Your task to perform on an android device: open app "Speedtest by Ookla" (install if not already installed) and go to login screen Image 0: 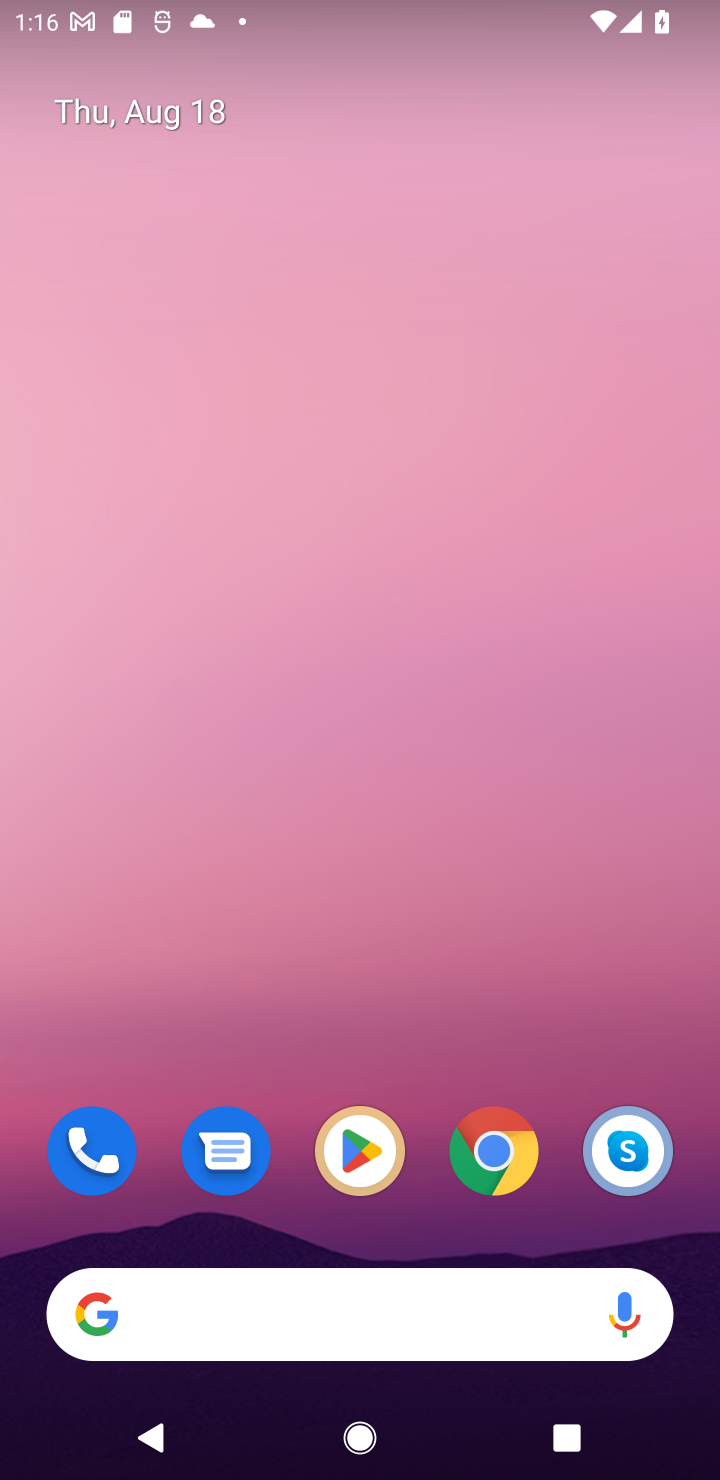
Step 0: click (345, 1148)
Your task to perform on an android device: open app "Speedtest by Ookla" (install if not already installed) and go to login screen Image 1: 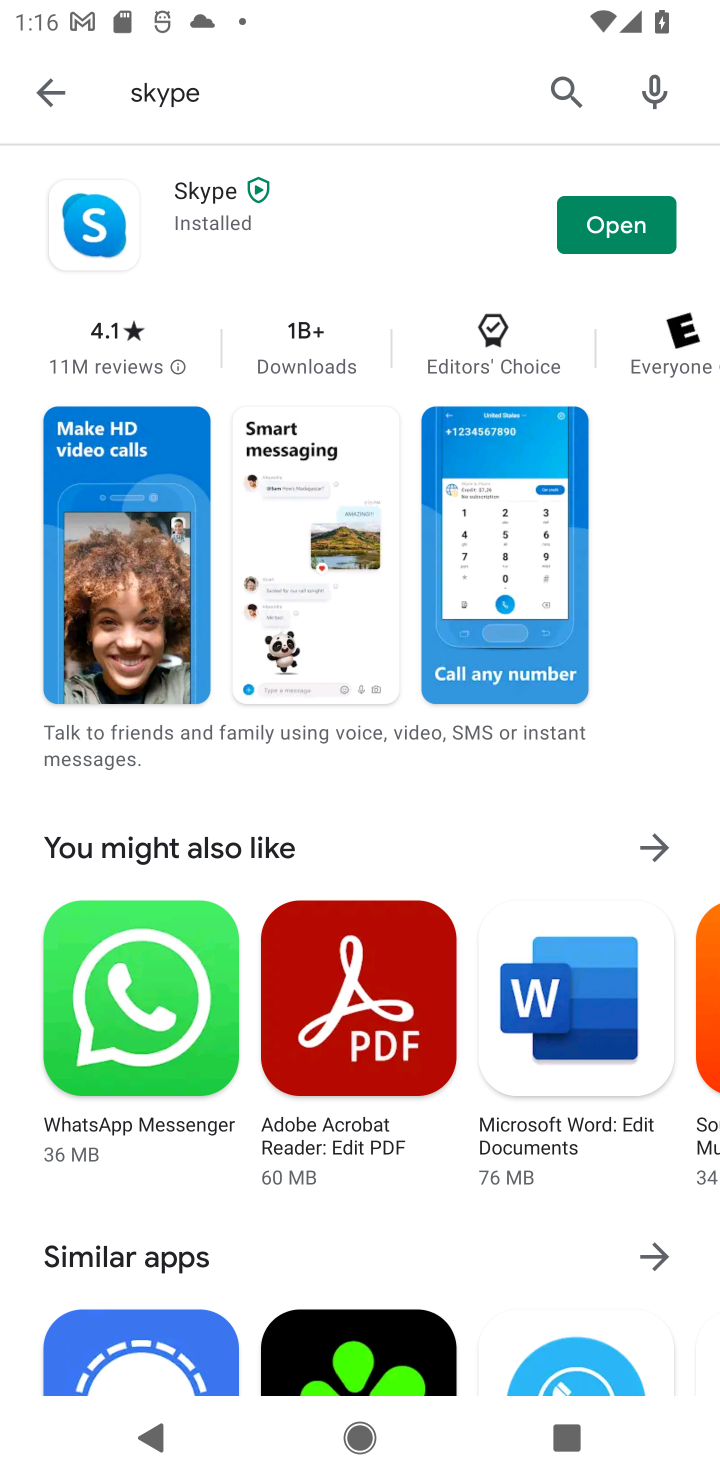
Step 1: click (32, 91)
Your task to perform on an android device: open app "Speedtest by Ookla" (install if not already installed) and go to login screen Image 2: 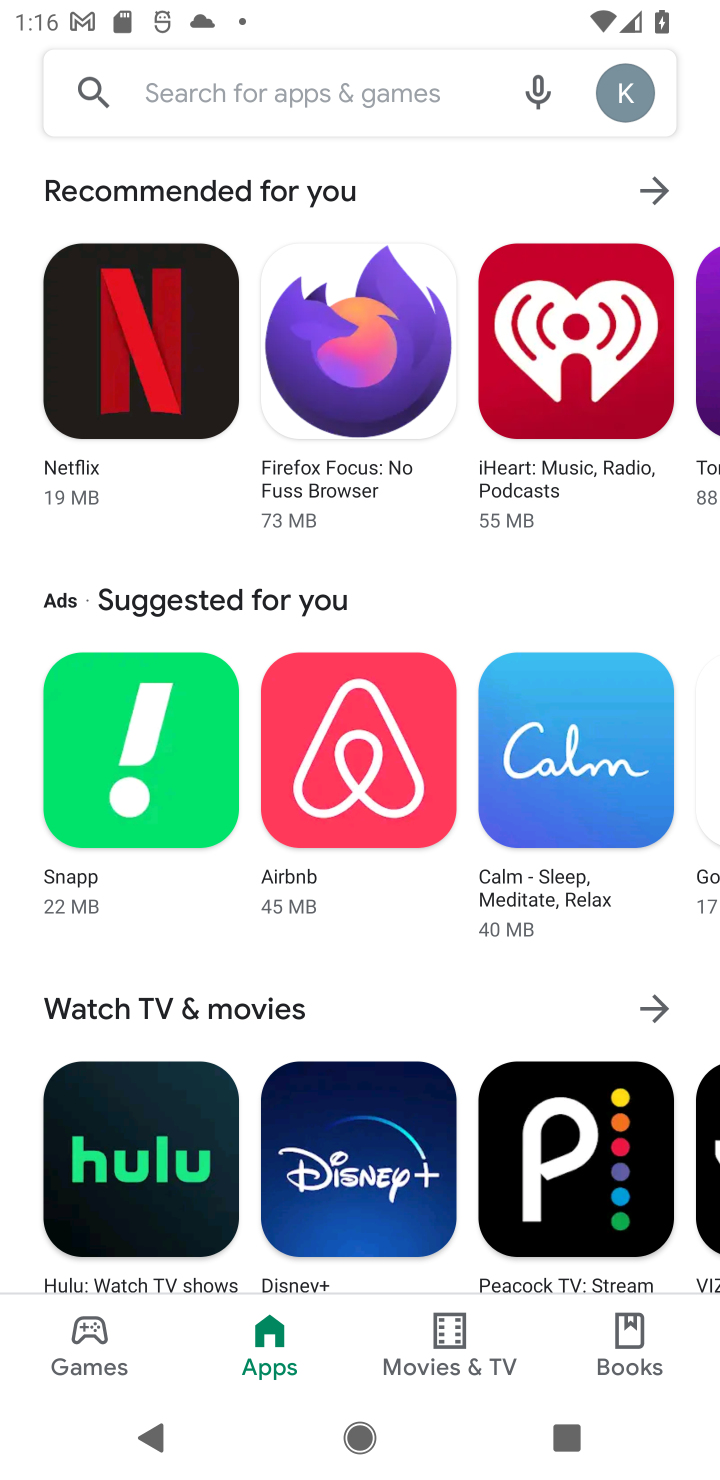
Step 2: click (332, 69)
Your task to perform on an android device: open app "Speedtest by Ookla" (install if not already installed) and go to login screen Image 3: 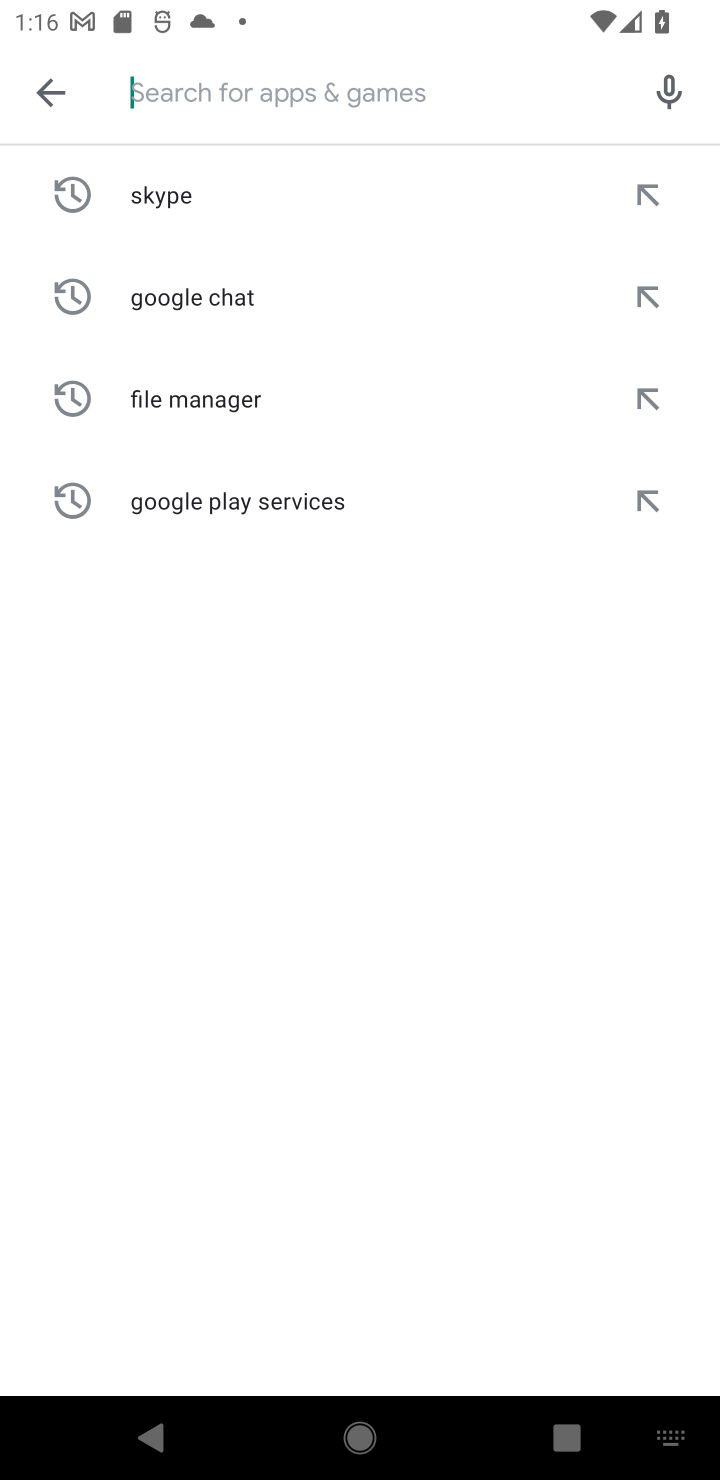
Step 3: type "Speedtest by Ookla"
Your task to perform on an android device: open app "Speedtest by Ookla" (install if not already installed) and go to login screen Image 4: 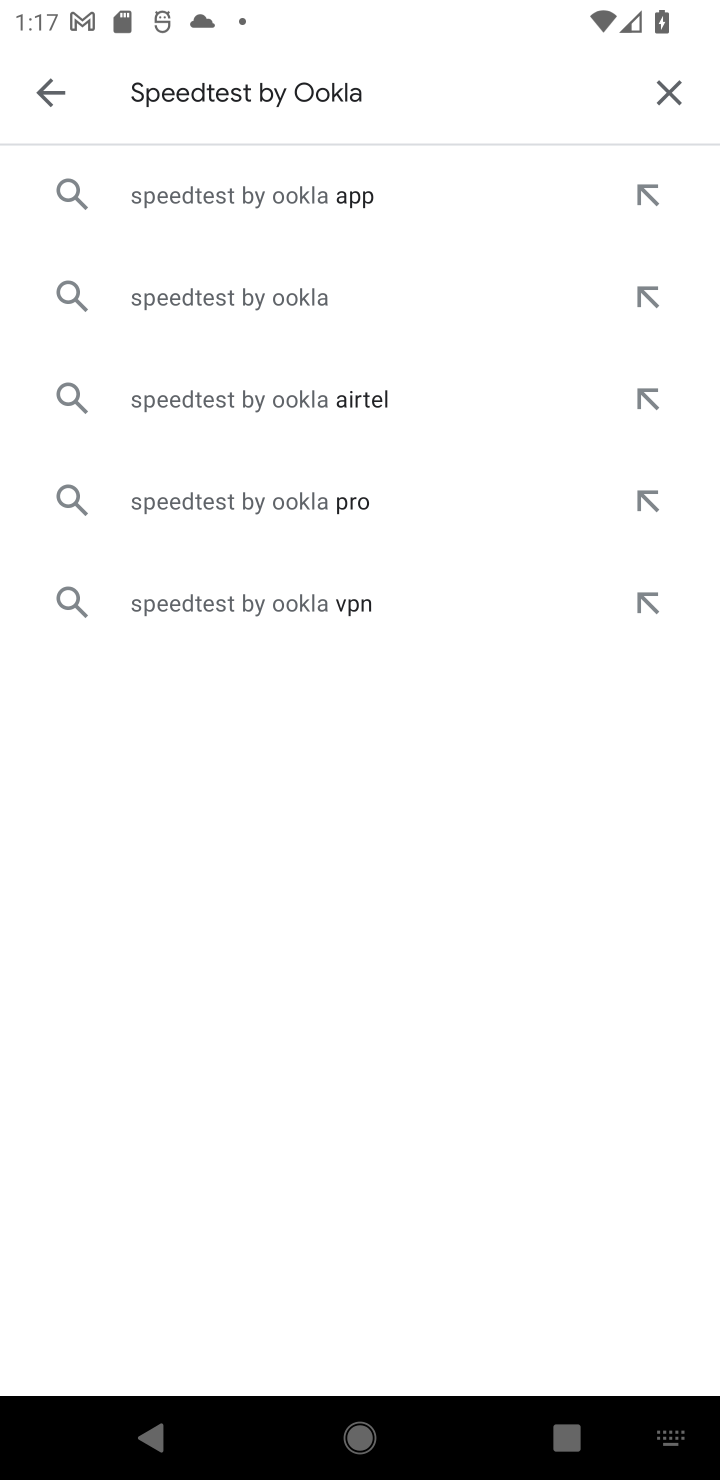
Step 4: click (286, 192)
Your task to perform on an android device: open app "Speedtest by Ookla" (install if not already installed) and go to login screen Image 5: 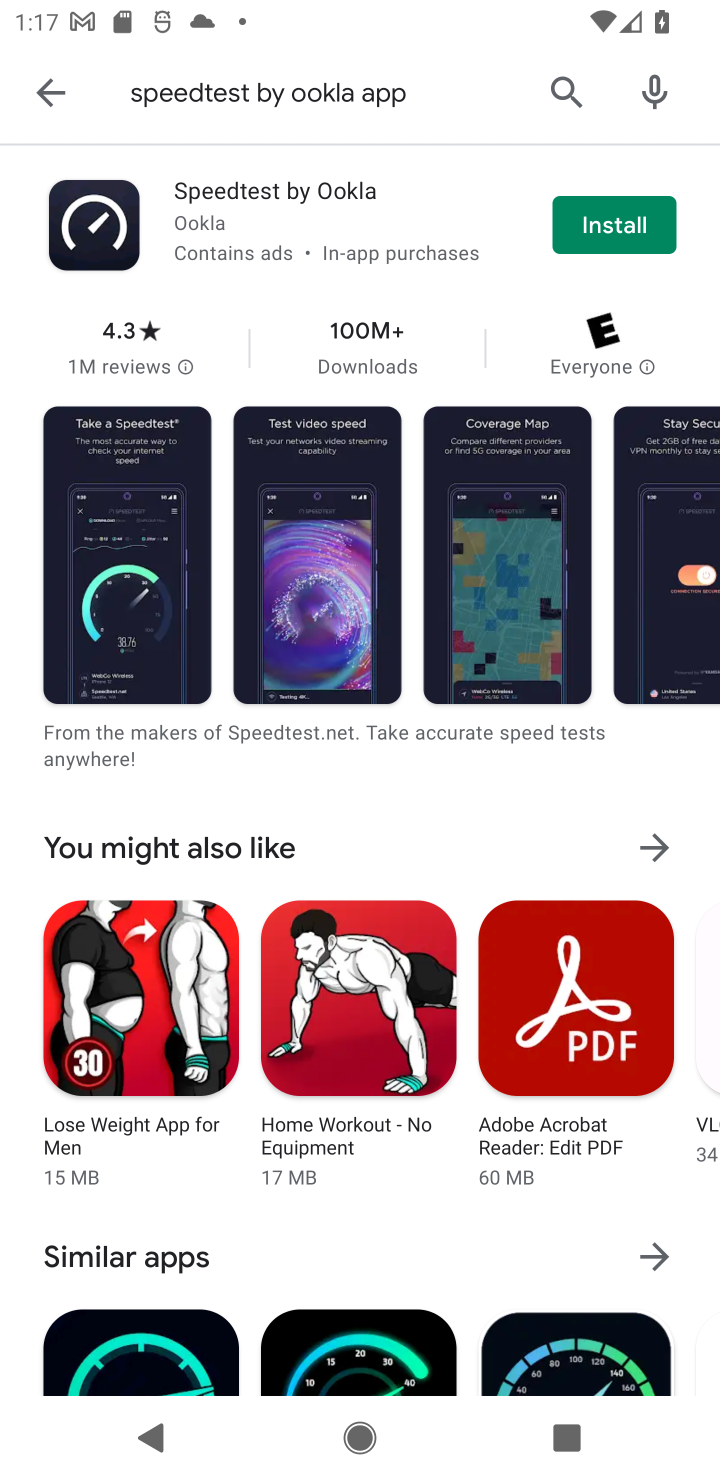
Step 5: click (613, 207)
Your task to perform on an android device: open app "Speedtest by Ookla" (install if not already installed) and go to login screen Image 6: 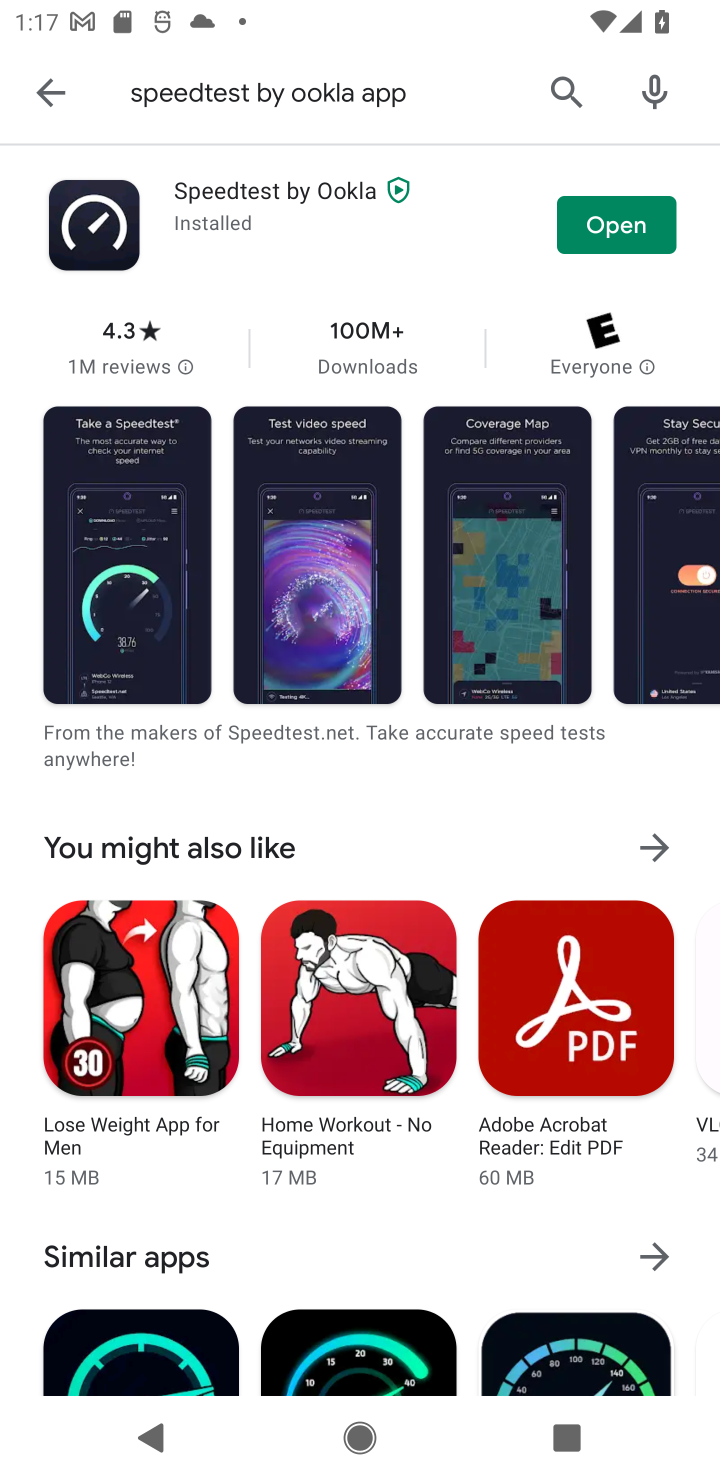
Step 6: click (591, 231)
Your task to perform on an android device: open app "Speedtest by Ookla" (install if not already installed) and go to login screen Image 7: 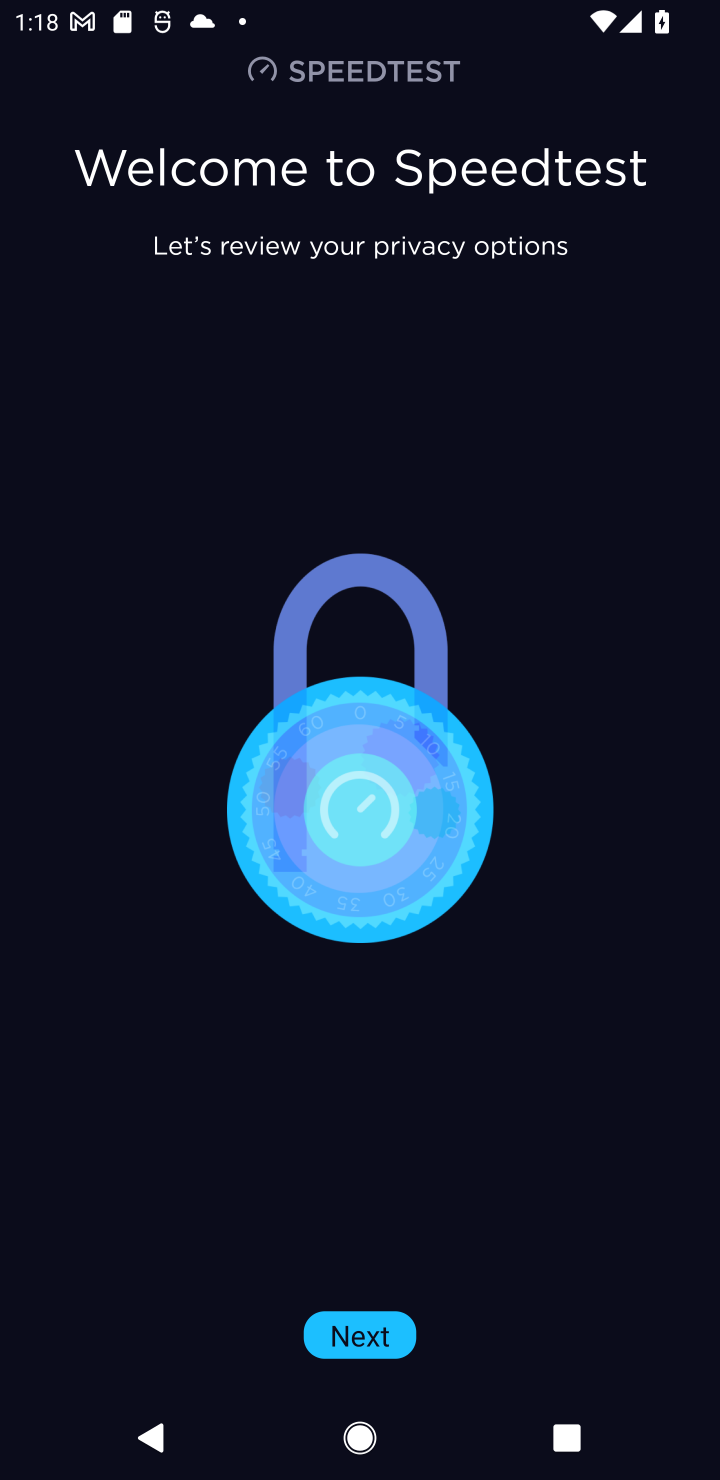
Step 7: task complete